Your task to perform on an android device: turn pop-ups off in chrome Image 0: 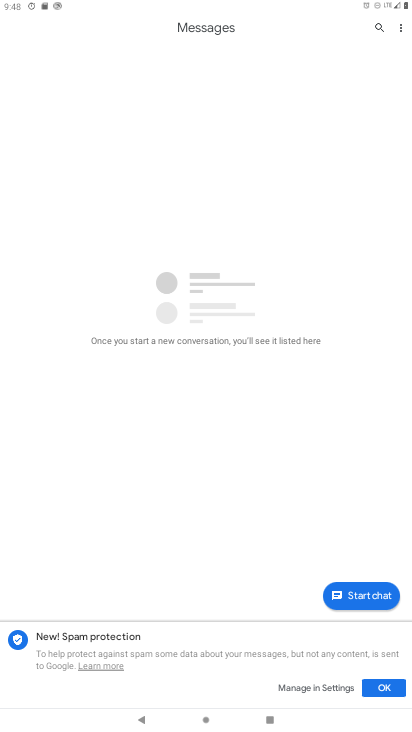
Step 0: press home button
Your task to perform on an android device: turn pop-ups off in chrome Image 1: 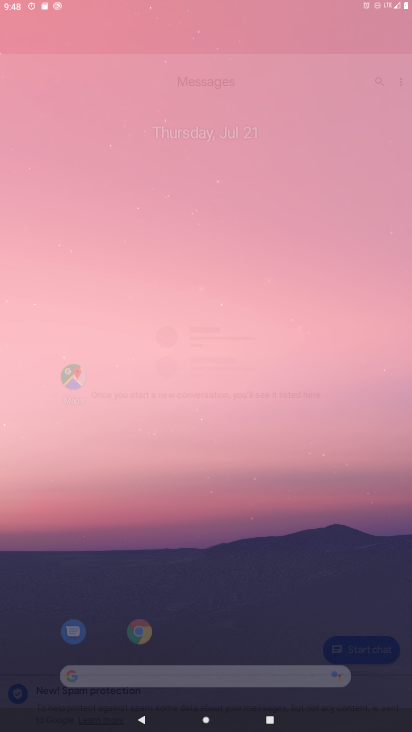
Step 1: drag from (406, 658) to (233, 94)
Your task to perform on an android device: turn pop-ups off in chrome Image 2: 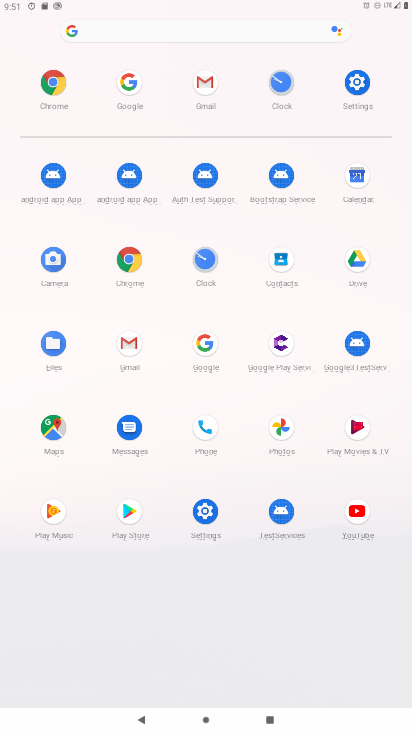
Step 2: click (118, 241)
Your task to perform on an android device: turn pop-ups off in chrome Image 3: 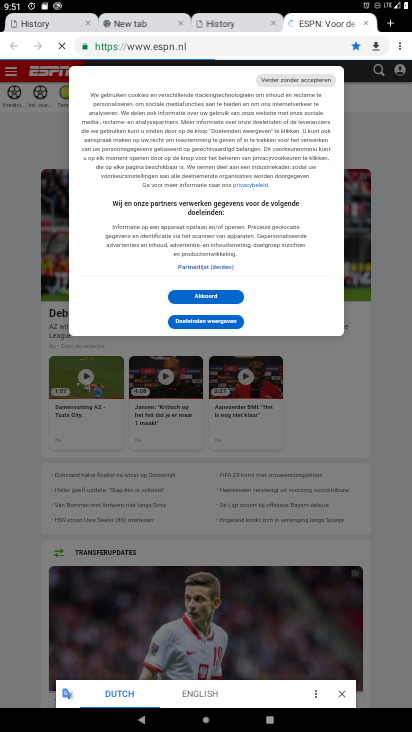
Step 3: click (405, 42)
Your task to perform on an android device: turn pop-ups off in chrome Image 4: 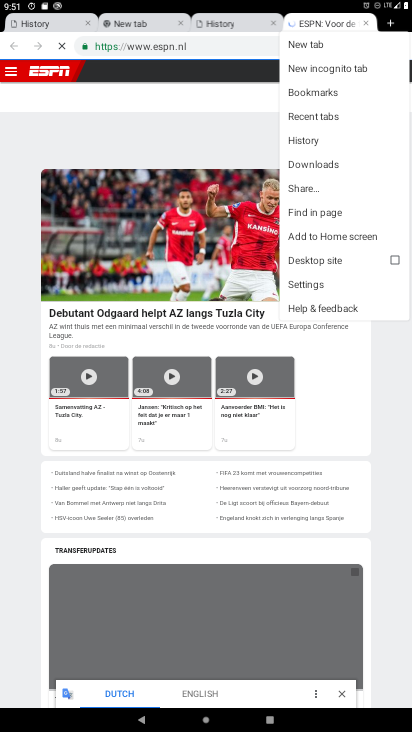
Step 4: click (312, 279)
Your task to perform on an android device: turn pop-ups off in chrome Image 5: 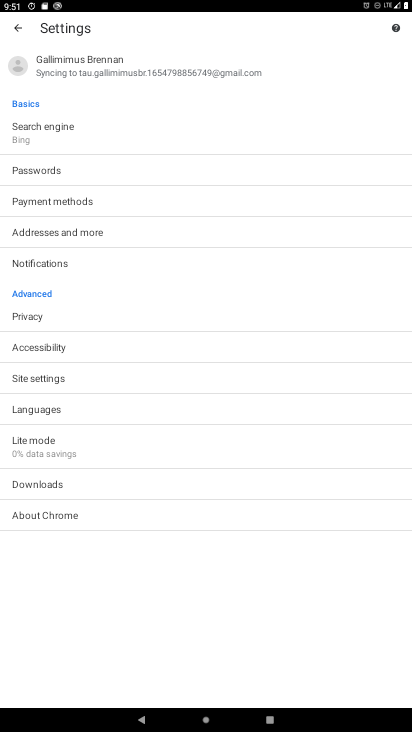
Step 5: click (69, 370)
Your task to perform on an android device: turn pop-ups off in chrome Image 6: 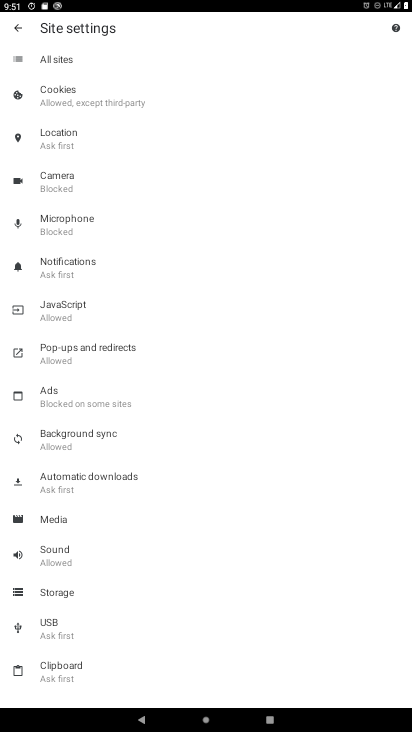
Step 6: click (83, 362)
Your task to perform on an android device: turn pop-ups off in chrome Image 7: 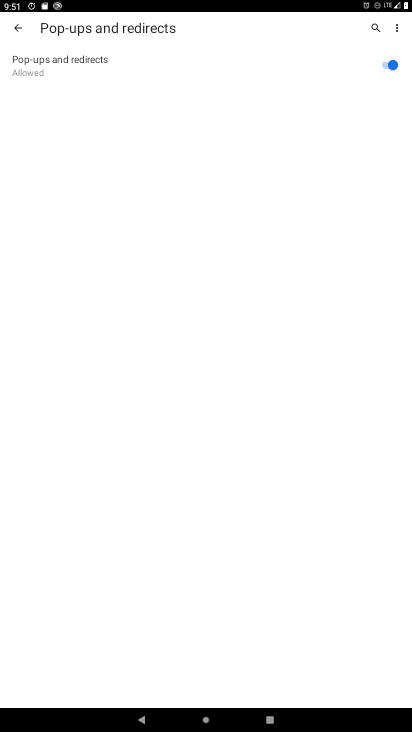
Step 7: click (371, 57)
Your task to perform on an android device: turn pop-ups off in chrome Image 8: 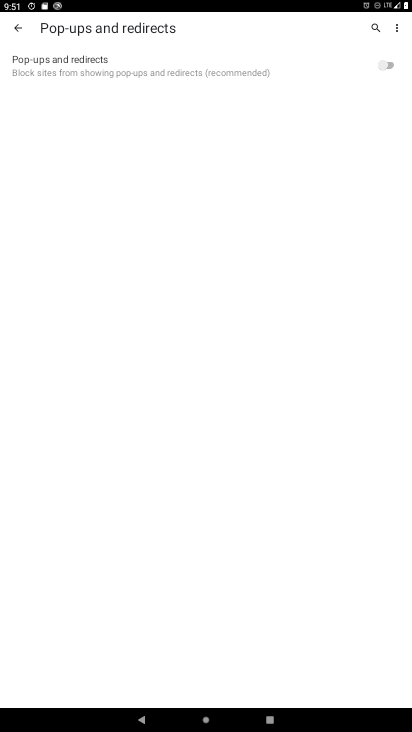
Step 8: task complete